Your task to perform on an android device: Add "bose quietcomfort 35" to the cart on newegg.com, then select checkout. Image 0: 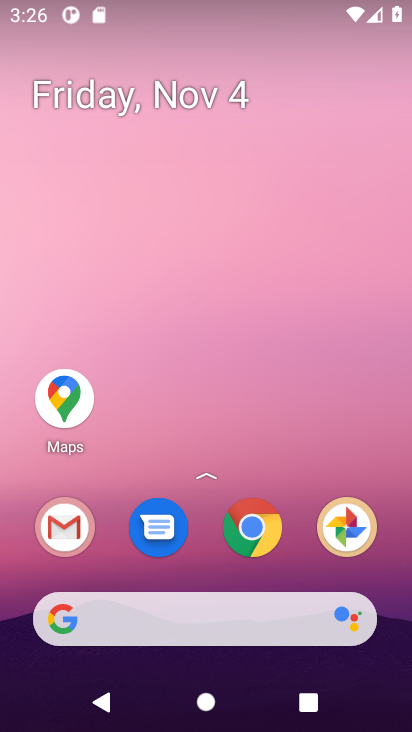
Step 0: click (258, 523)
Your task to perform on an android device: Add "bose quietcomfort 35" to the cart on newegg.com, then select checkout. Image 1: 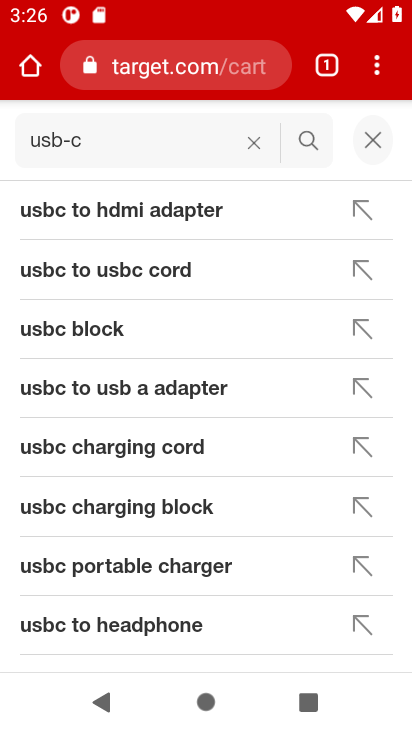
Step 1: click (222, 63)
Your task to perform on an android device: Add "bose quietcomfort 35" to the cart on newegg.com, then select checkout. Image 2: 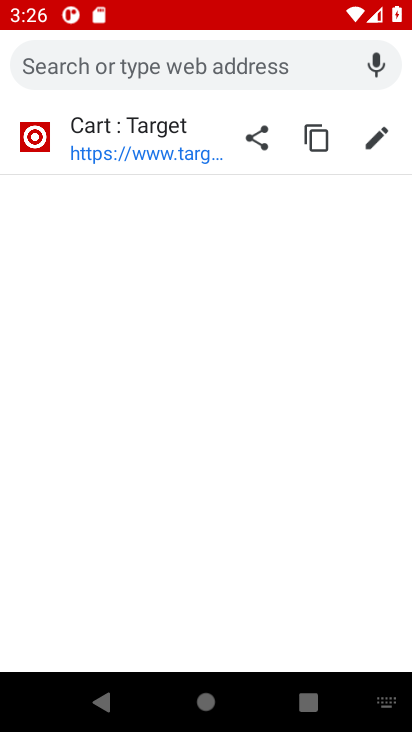
Step 2: type "newegg.com"
Your task to perform on an android device: Add "bose quietcomfort 35" to the cart on newegg.com, then select checkout. Image 3: 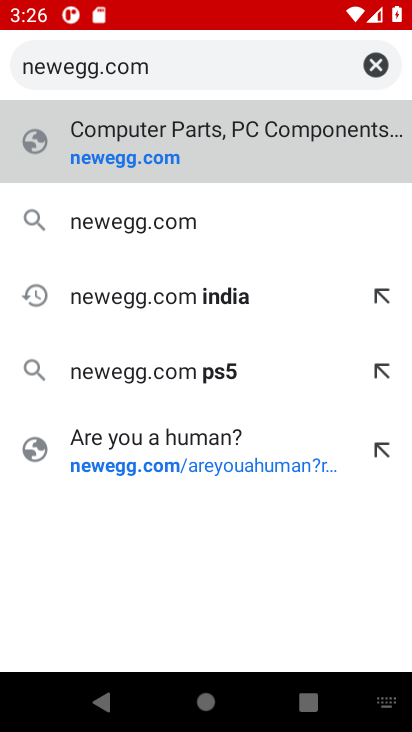
Step 3: click (145, 219)
Your task to perform on an android device: Add "bose quietcomfort 35" to the cart on newegg.com, then select checkout. Image 4: 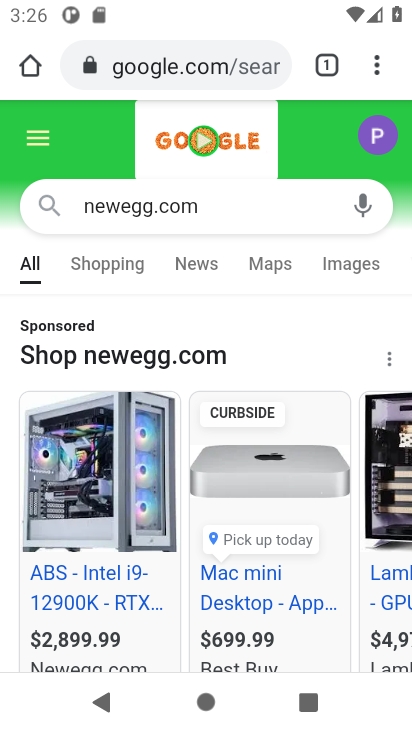
Step 4: drag from (173, 562) to (196, 243)
Your task to perform on an android device: Add "bose quietcomfort 35" to the cart on newegg.com, then select checkout. Image 5: 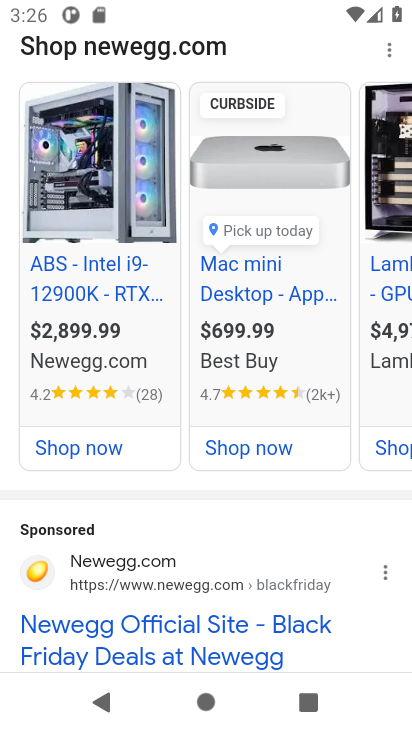
Step 5: drag from (199, 586) to (265, 187)
Your task to perform on an android device: Add "bose quietcomfort 35" to the cart on newegg.com, then select checkout. Image 6: 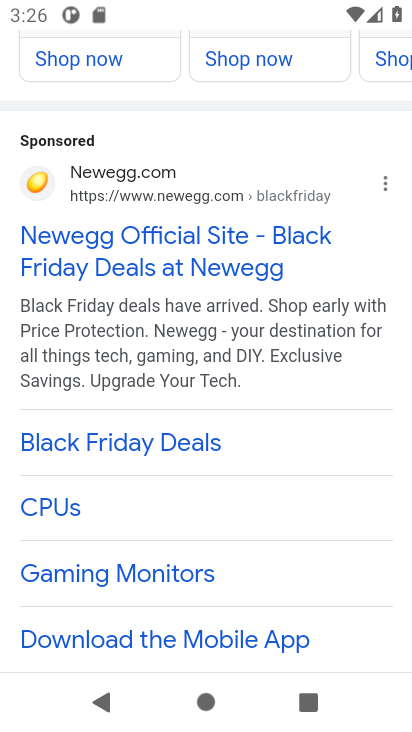
Step 6: drag from (226, 539) to (291, 250)
Your task to perform on an android device: Add "bose quietcomfort 35" to the cart on newegg.com, then select checkout. Image 7: 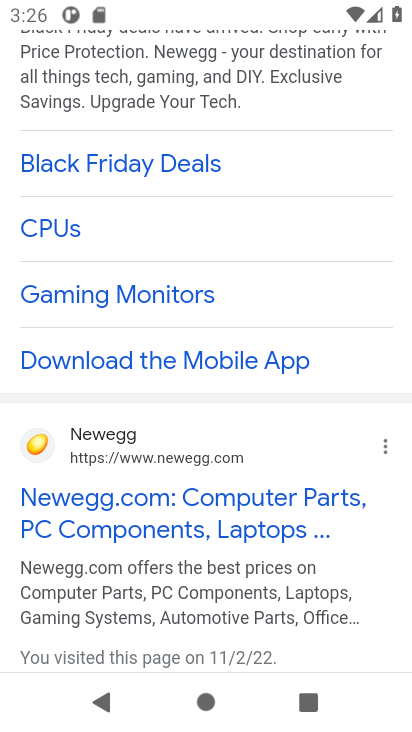
Step 7: click (222, 458)
Your task to perform on an android device: Add "bose quietcomfort 35" to the cart on newegg.com, then select checkout. Image 8: 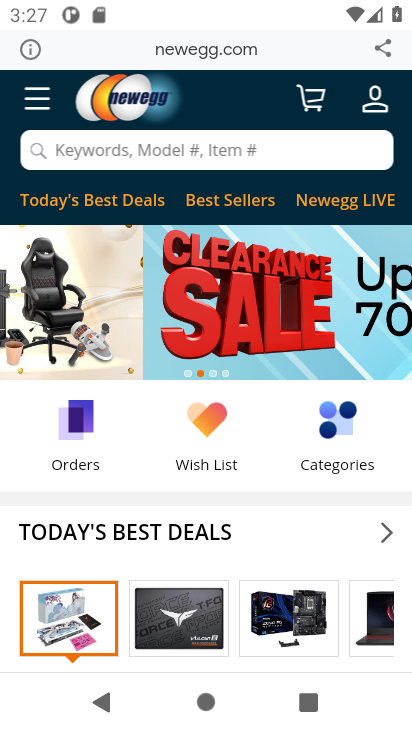
Step 8: click (321, 147)
Your task to perform on an android device: Add "bose quietcomfort 35" to the cart on newegg.com, then select checkout. Image 9: 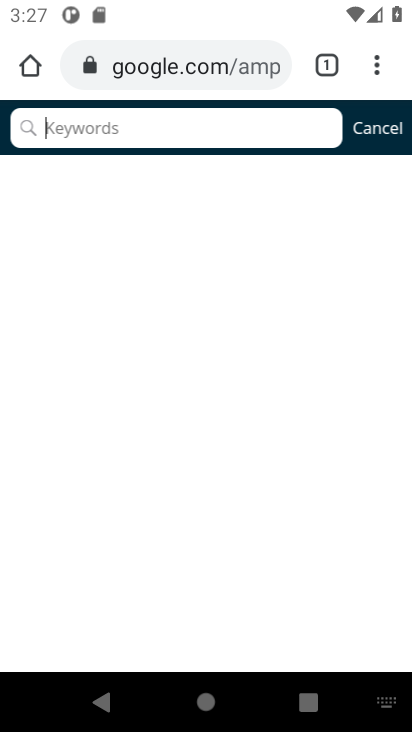
Step 9: type "bose quietcomfort 35"
Your task to perform on an android device: Add "bose quietcomfort 35" to the cart on newegg.com, then select checkout. Image 10: 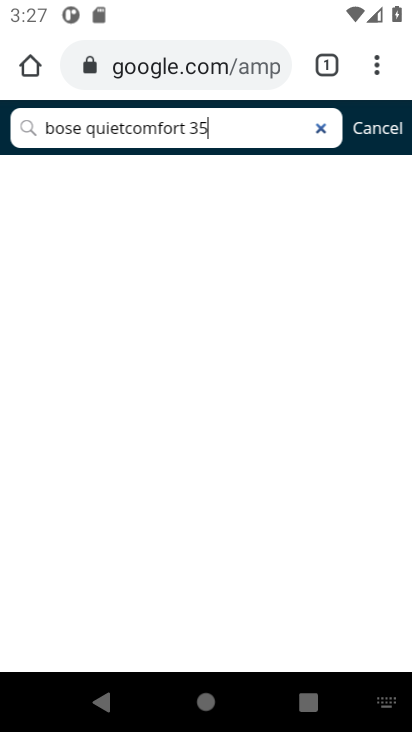
Step 10: click (316, 300)
Your task to perform on an android device: Add "bose quietcomfort 35" to the cart on newegg.com, then select checkout. Image 11: 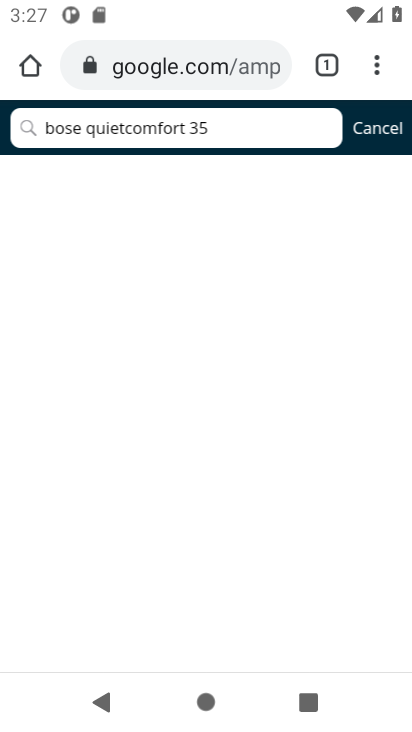
Step 11: task complete